Your task to perform on an android device: Go to Android settings Image 0: 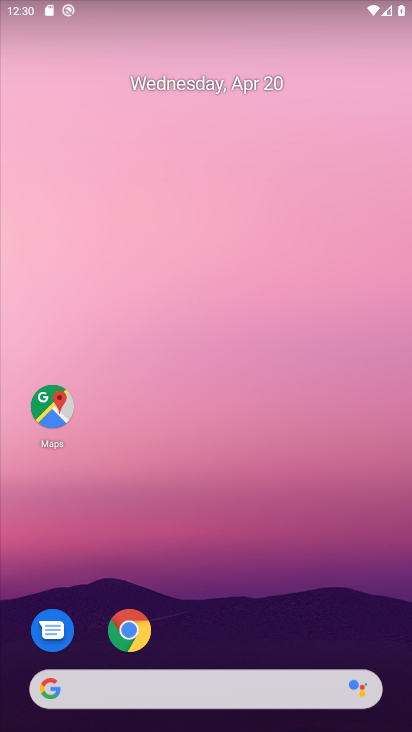
Step 0: drag from (249, 590) to (232, 73)
Your task to perform on an android device: Go to Android settings Image 1: 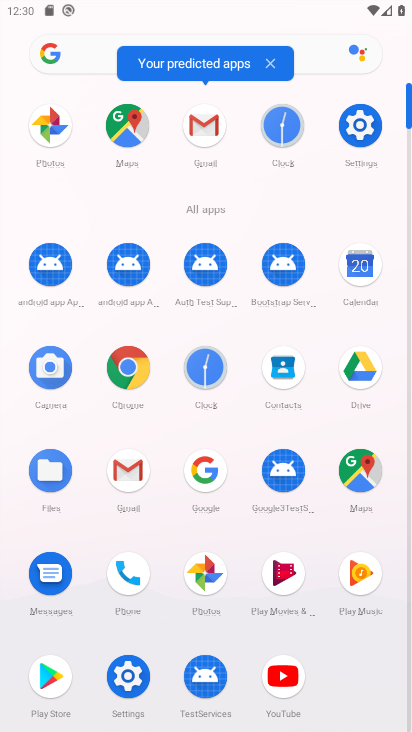
Step 1: click (359, 124)
Your task to perform on an android device: Go to Android settings Image 2: 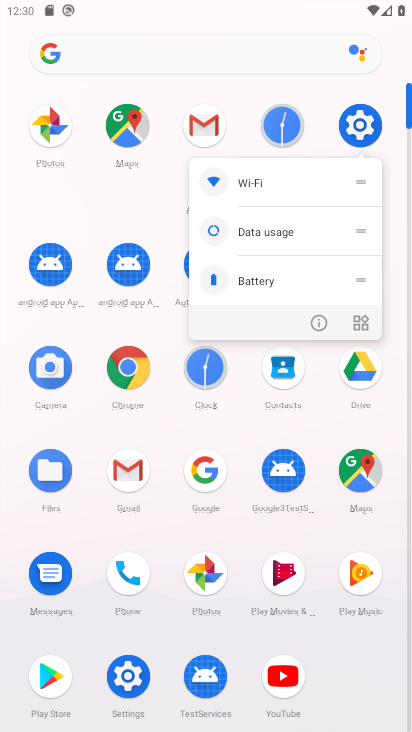
Step 2: click (359, 124)
Your task to perform on an android device: Go to Android settings Image 3: 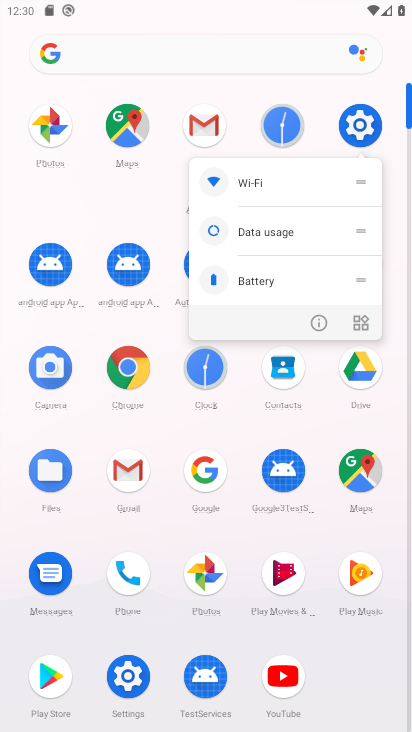
Step 3: click (359, 124)
Your task to perform on an android device: Go to Android settings Image 4: 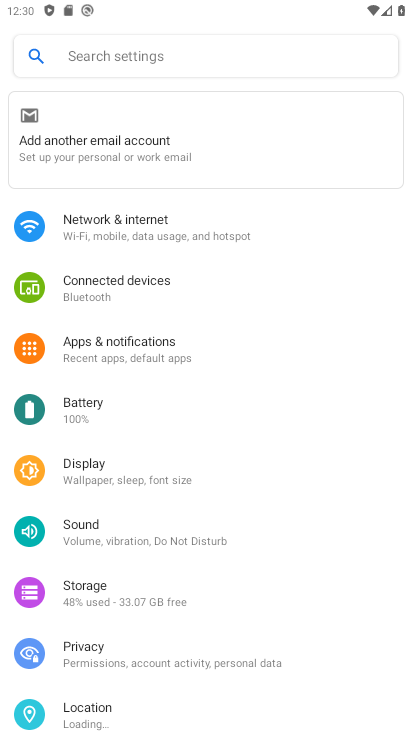
Step 4: drag from (207, 652) to (214, 180)
Your task to perform on an android device: Go to Android settings Image 5: 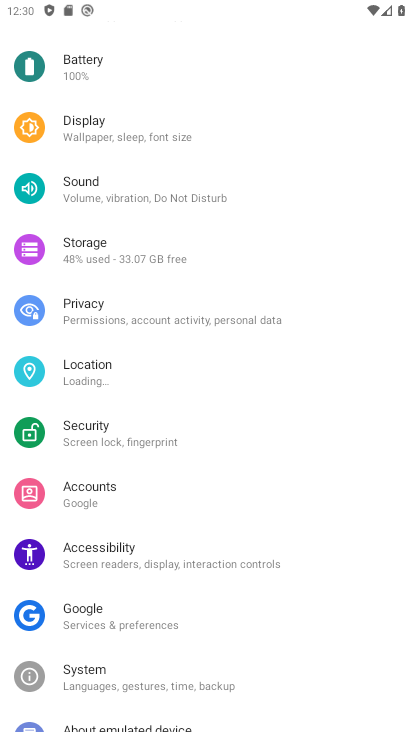
Step 5: drag from (186, 440) to (224, 140)
Your task to perform on an android device: Go to Android settings Image 6: 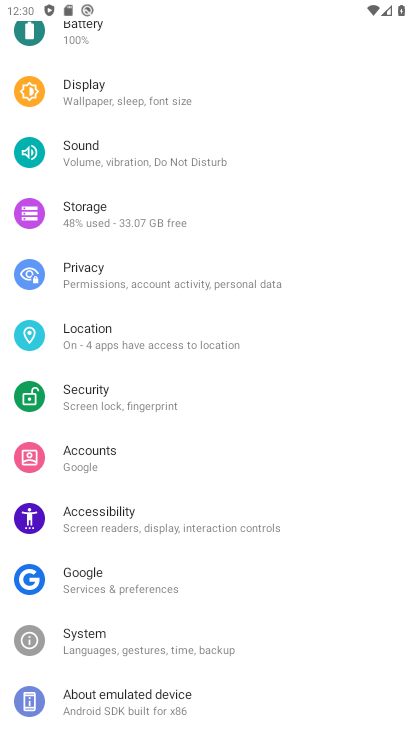
Step 6: click (161, 703)
Your task to perform on an android device: Go to Android settings Image 7: 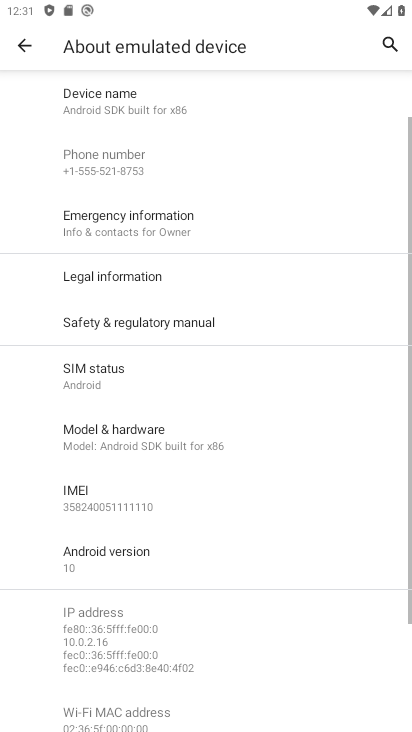
Step 7: task complete